Your task to perform on an android device: Search for logitech g933 on amazon.com, select the first entry, add it to the cart, then select checkout. Image 0: 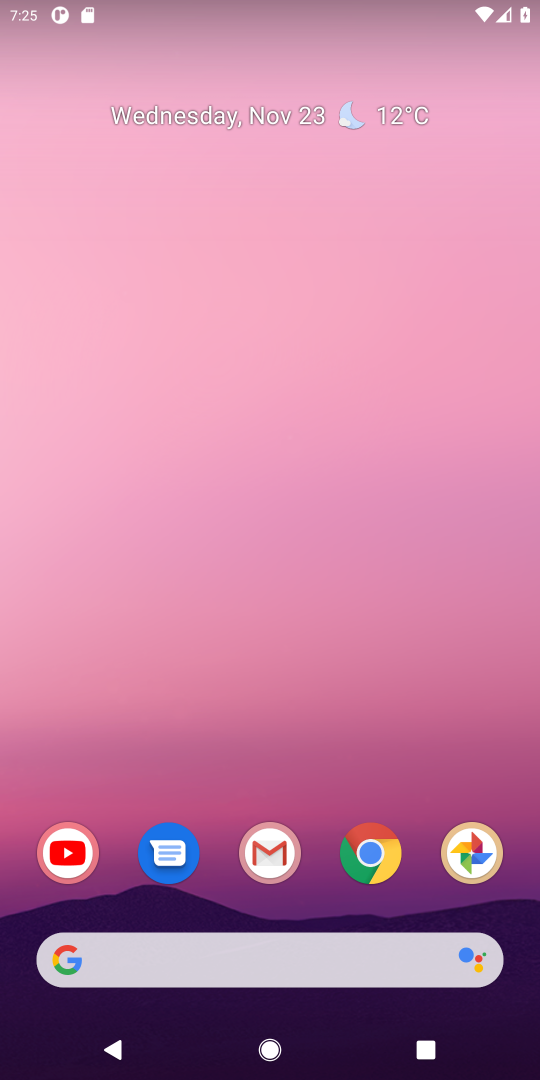
Step 0: click (373, 857)
Your task to perform on an android device: Search for logitech g933 on amazon.com, select the first entry, add it to the cart, then select checkout. Image 1: 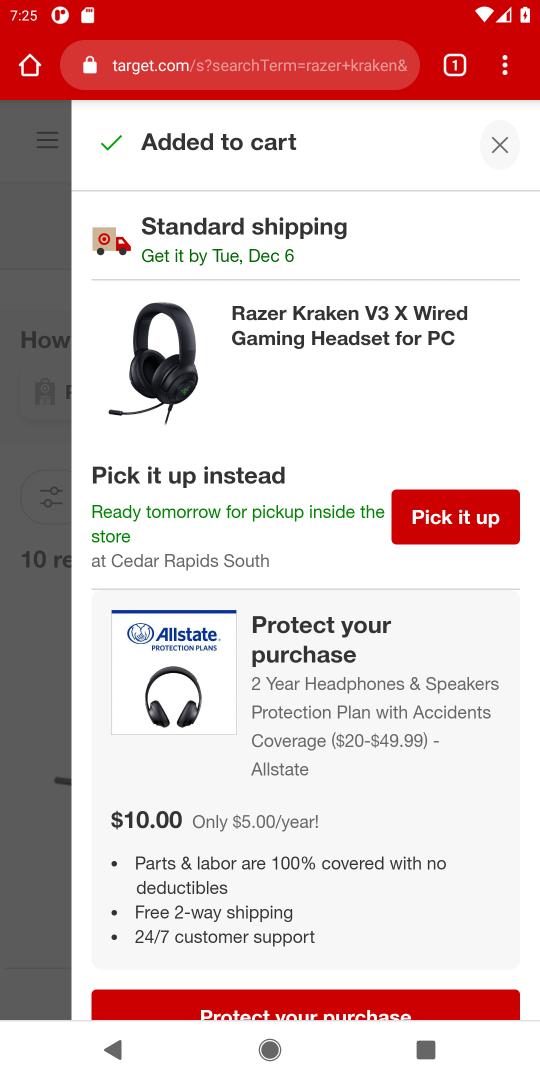
Step 1: click (250, 60)
Your task to perform on an android device: Search for logitech g933 on amazon.com, select the first entry, add it to the cart, then select checkout. Image 2: 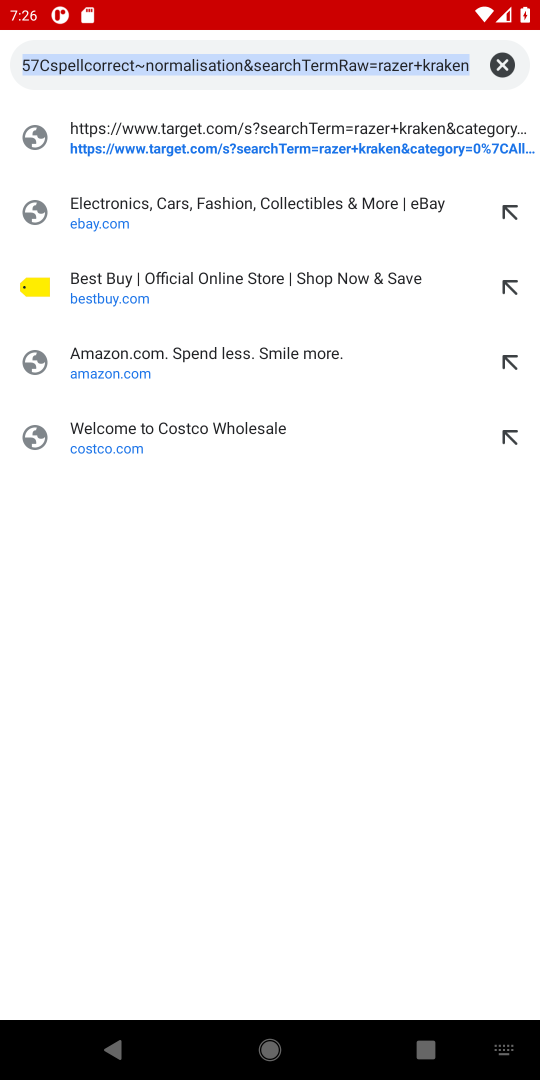
Step 2: click (82, 373)
Your task to perform on an android device: Search for logitech g933 on amazon.com, select the first entry, add it to the cart, then select checkout. Image 3: 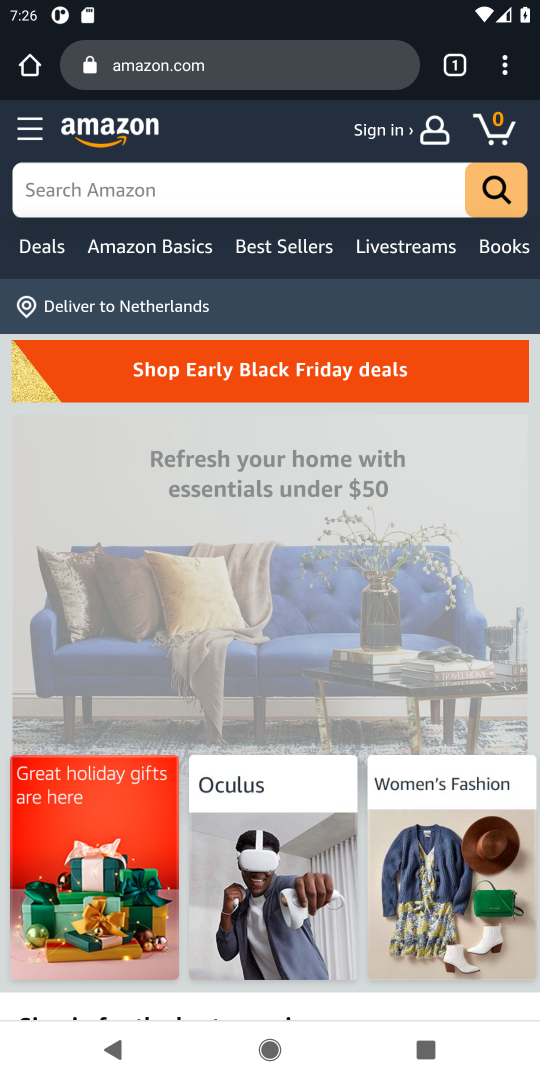
Step 3: click (143, 189)
Your task to perform on an android device: Search for logitech g933 on amazon.com, select the first entry, add it to the cart, then select checkout. Image 4: 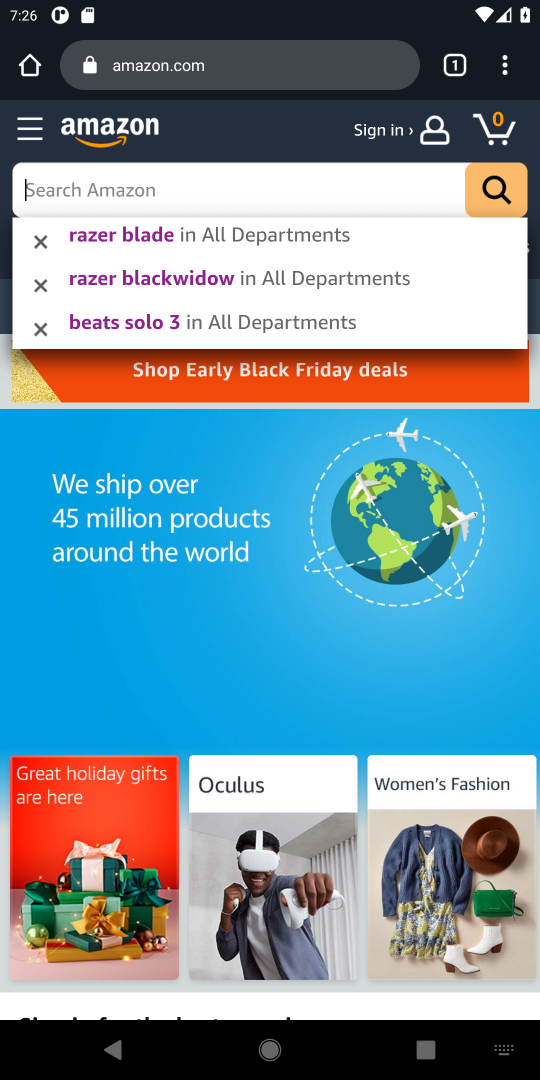
Step 4: type "logitech g933 "
Your task to perform on an android device: Search for logitech g933 on amazon.com, select the first entry, add it to the cart, then select checkout. Image 5: 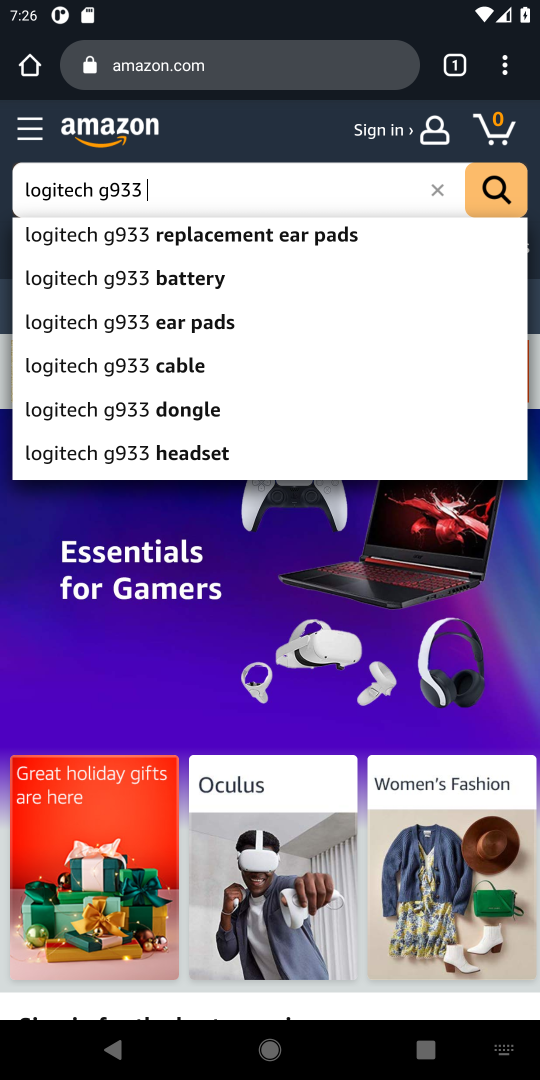
Step 5: click (481, 195)
Your task to perform on an android device: Search for logitech g933 on amazon.com, select the first entry, add it to the cart, then select checkout. Image 6: 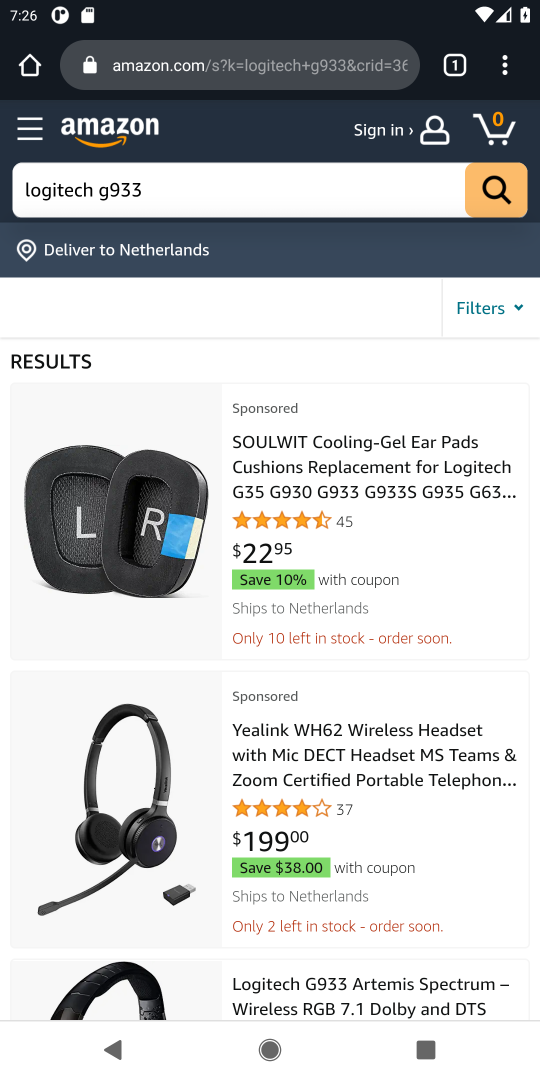
Step 6: click (133, 526)
Your task to perform on an android device: Search for logitech g933 on amazon.com, select the first entry, add it to the cart, then select checkout. Image 7: 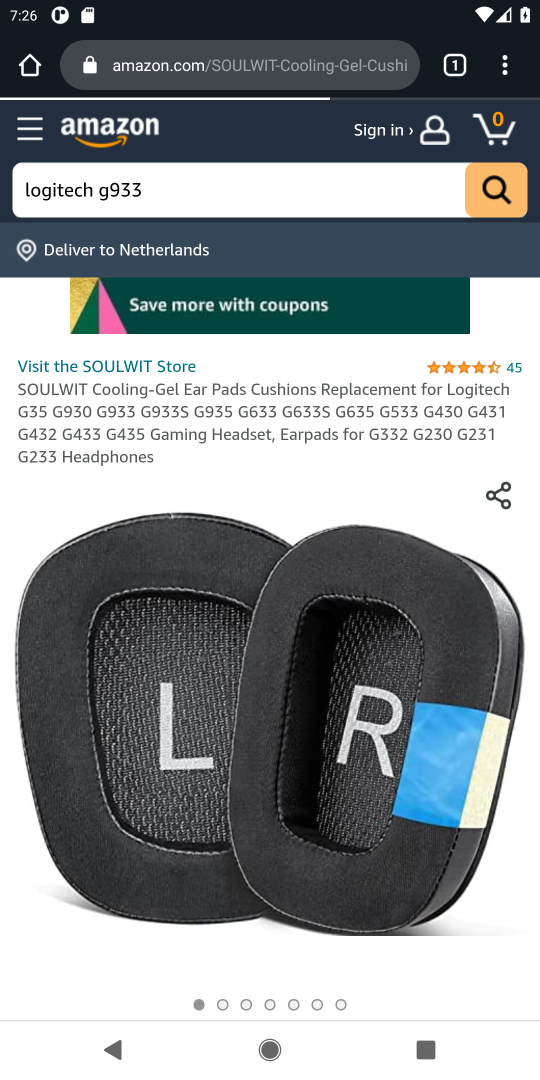
Step 7: drag from (172, 726) to (162, 277)
Your task to perform on an android device: Search for logitech g933 on amazon.com, select the first entry, add it to the cart, then select checkout. Image 8: 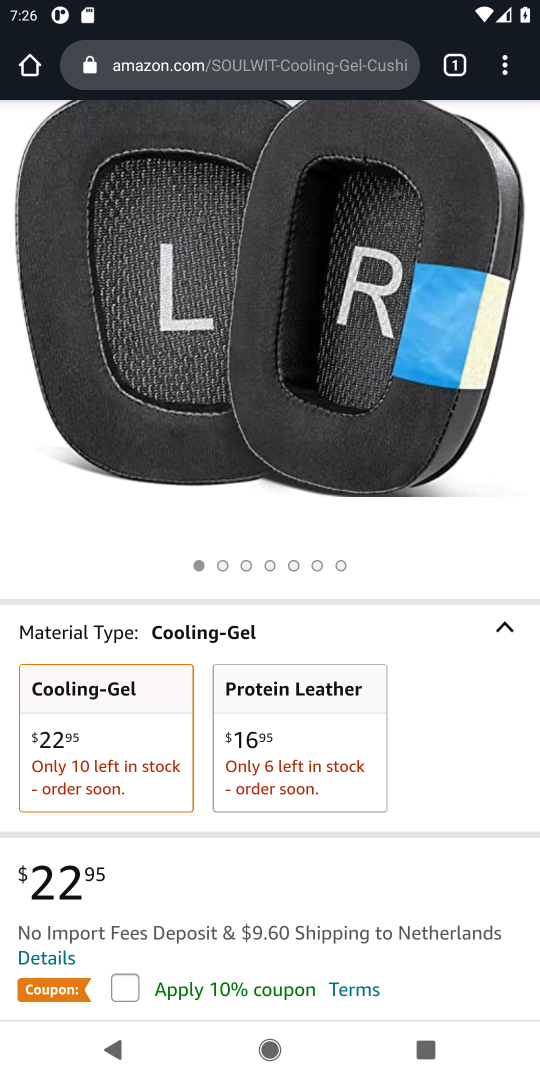
Step 8: drag from (246, 750) to (226, 315)
Your task to perform on an android device: Search for logitech g933 on amazon.com, select the first entry, add it to the cart, then select checkout. Image 9: 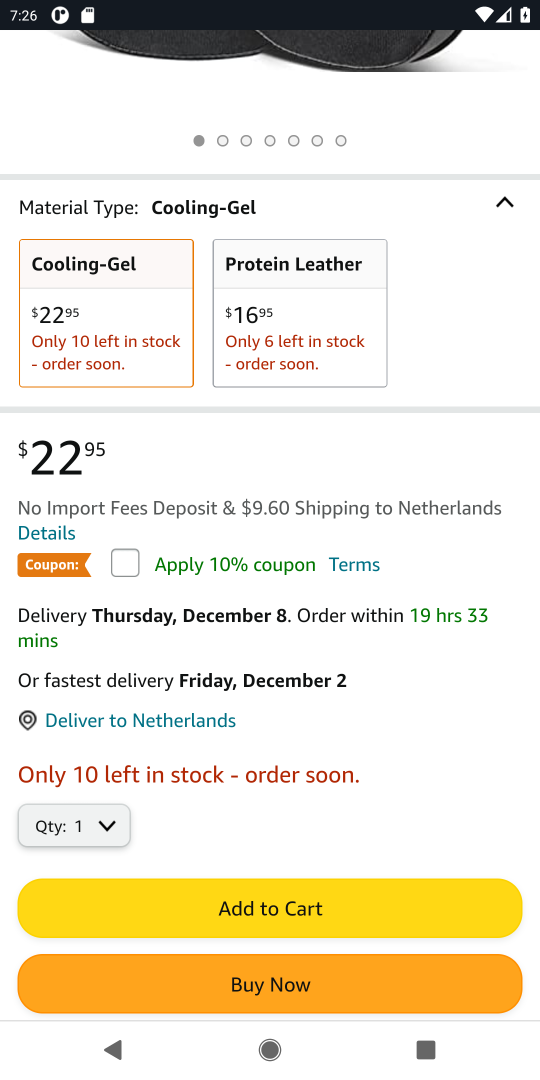
Step 9: click (254, 901)
Your task to perform on an android device: Search for logitech g933 on amazon.com, select the first entry, add it to the cart, then select checkout. Image 10: 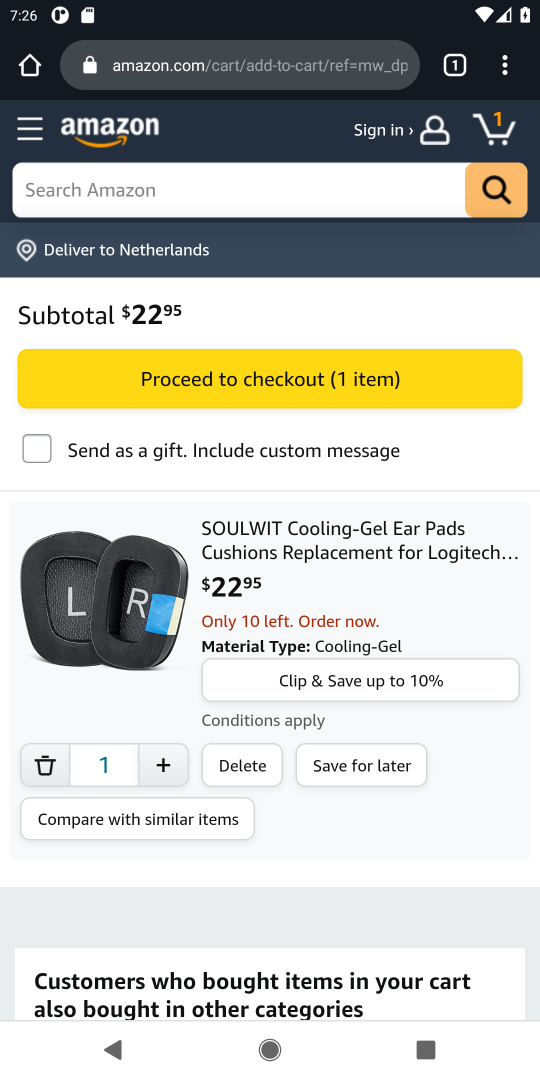
Step 10: click (250, 386)
Your task to perform on an android device: Search for logitech g933 on amazon.com, select the first entry, add it to the cart, then select checkout. Image 11: 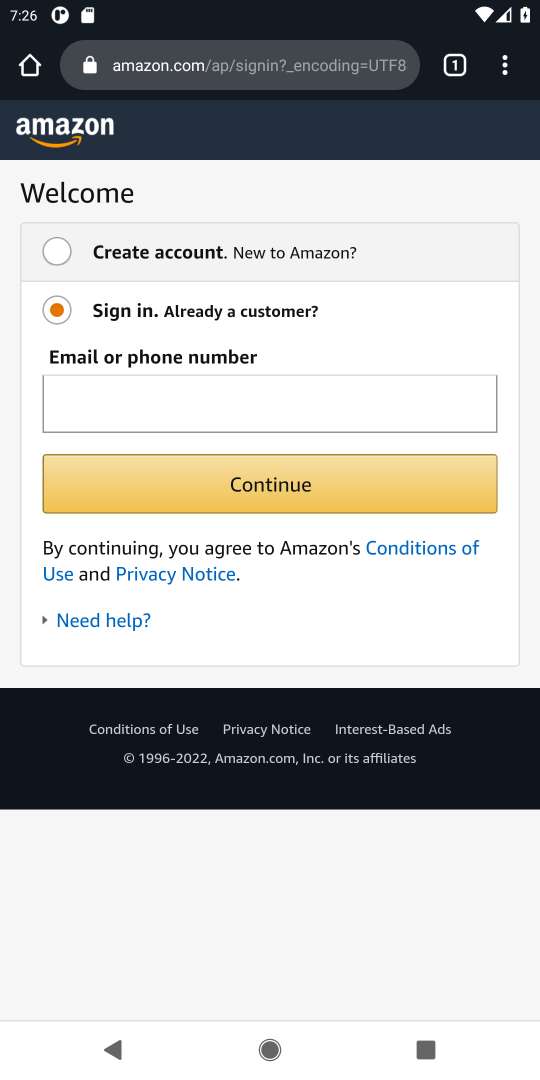
Step 11: task complete